Your task to perform on an android device: Install the Yelp app Image 0: 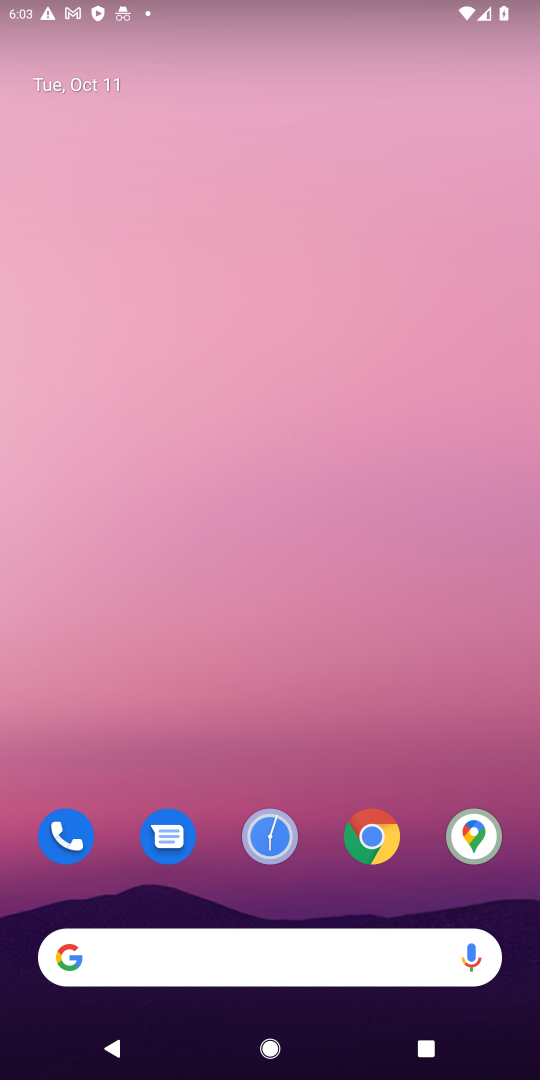
Step 0: click (371, 833)
Your task to perform on an android device: Install the Yelp app Image 1: 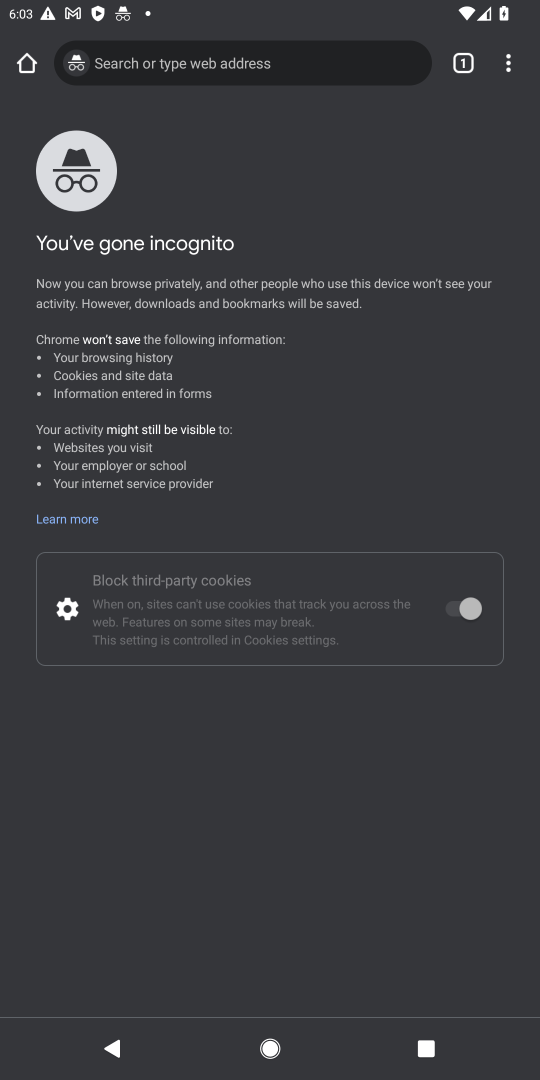
Step 1: press home button
Your task to perform on an android device: Install the Yelp app Image 2: 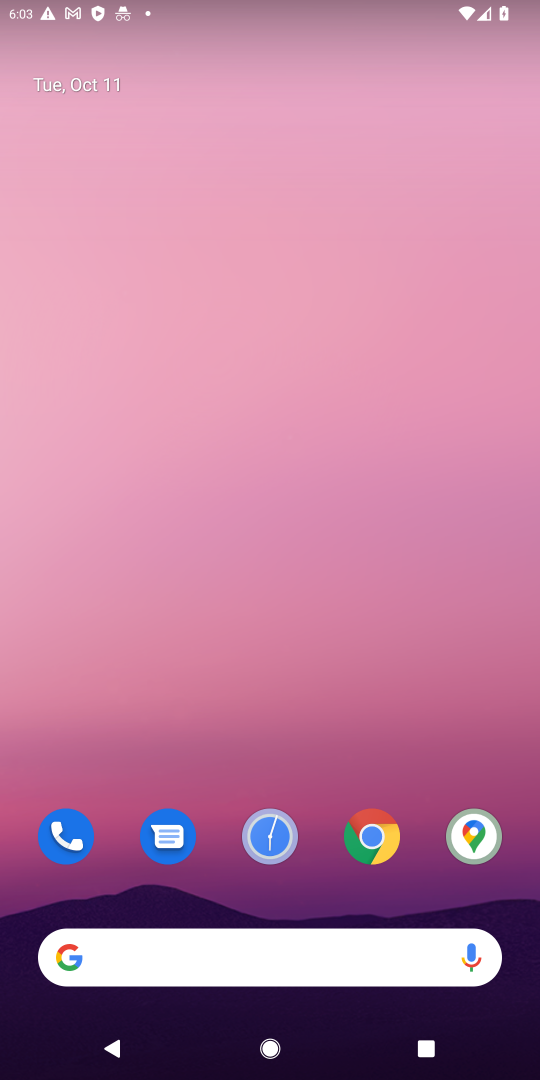
Step 2: drag from (426, 880) to (383, 139)
Your task to perform on an android device: Install the Yelp app Image 3: 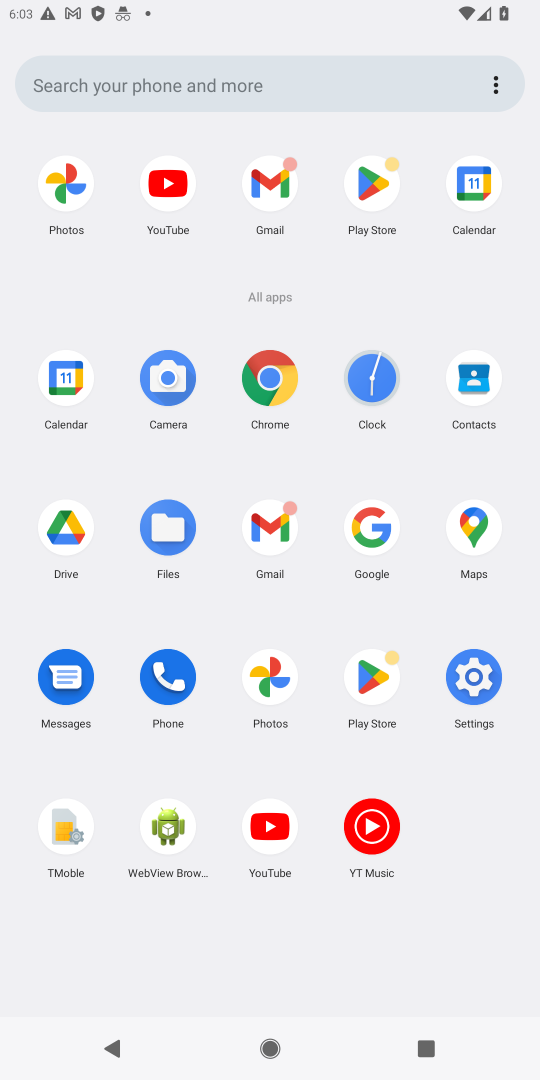
Step 3: click (377, 675)
Your task to perform on an android device: Install the Yelp app Image 4: 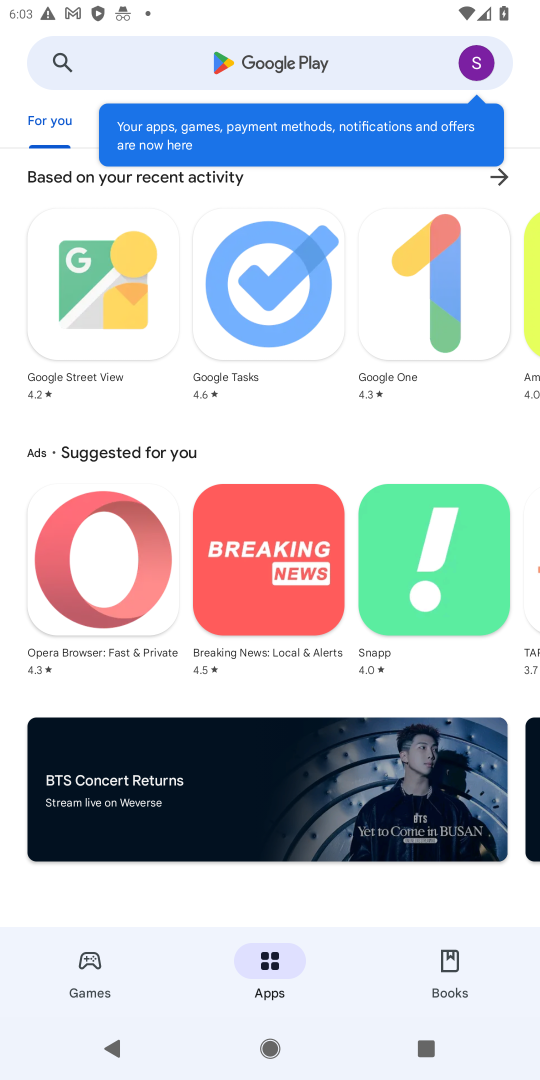
Step 4: click (99, 75)
Your task to perform on an android device: Install the Yelp app Image 5: 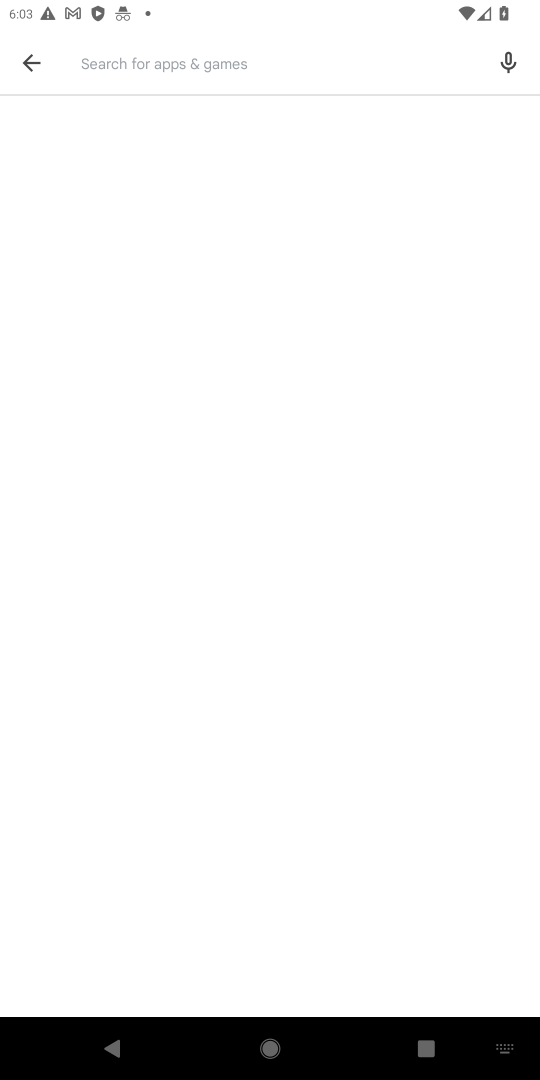
Step 5: type "yelp app"
Your task to perform on an android device: Install the Yelp app Image 6: 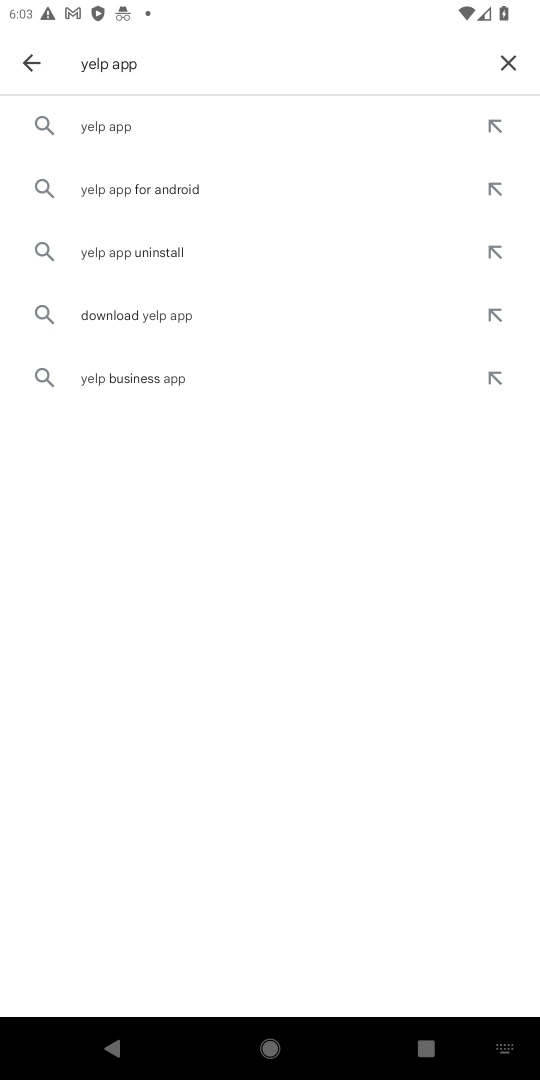
Step 6: click (94, 125)
Your task to perform on an android device: Install the Yelp app Image 7: 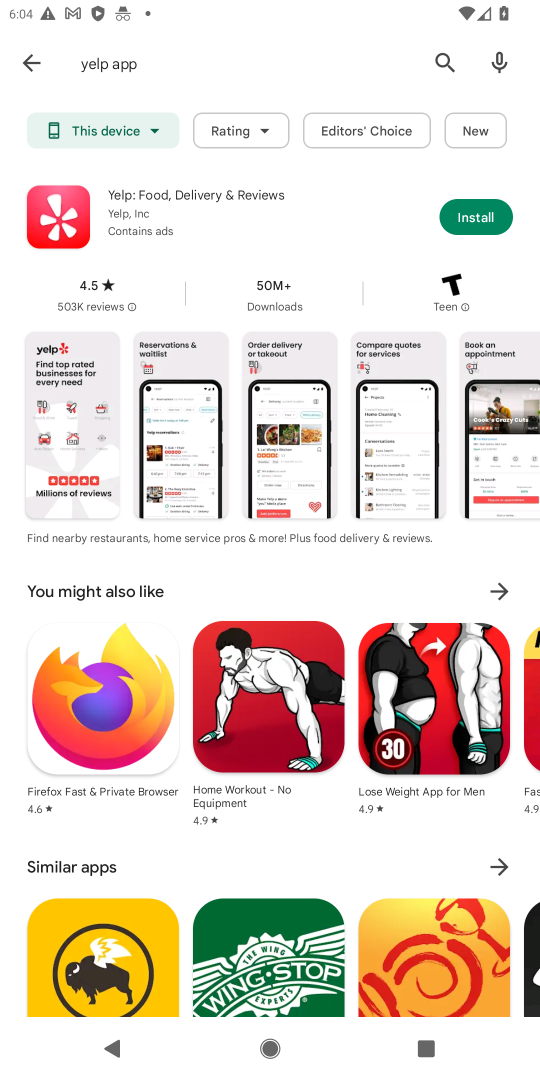
Step 7: click (471, 220)
Your task to perform on an android device: Install the Yelp app Image 8: 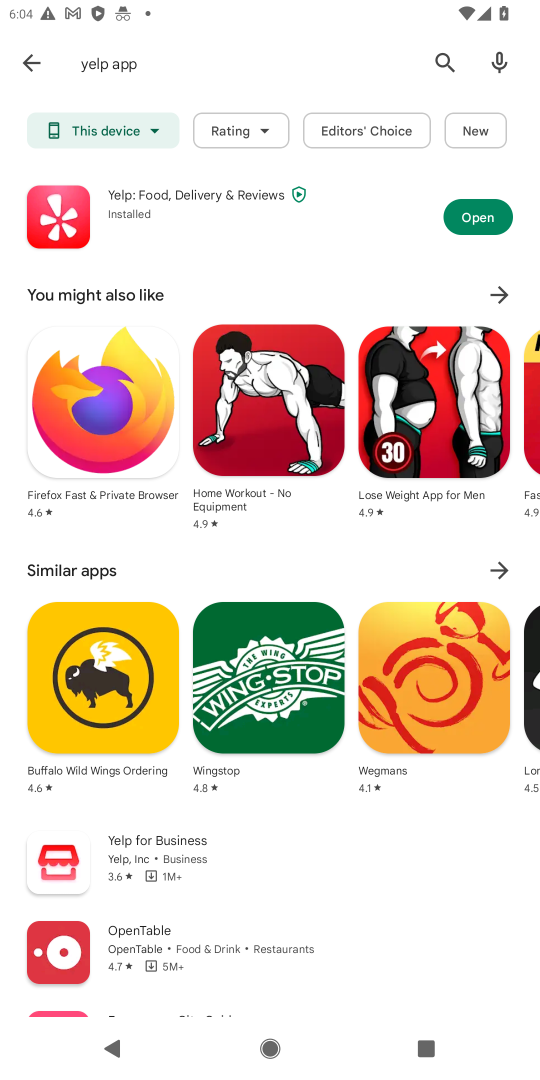
Step 8: click (477, 216)
Your task to perform on an android device: Install the Yelp app Image 9: 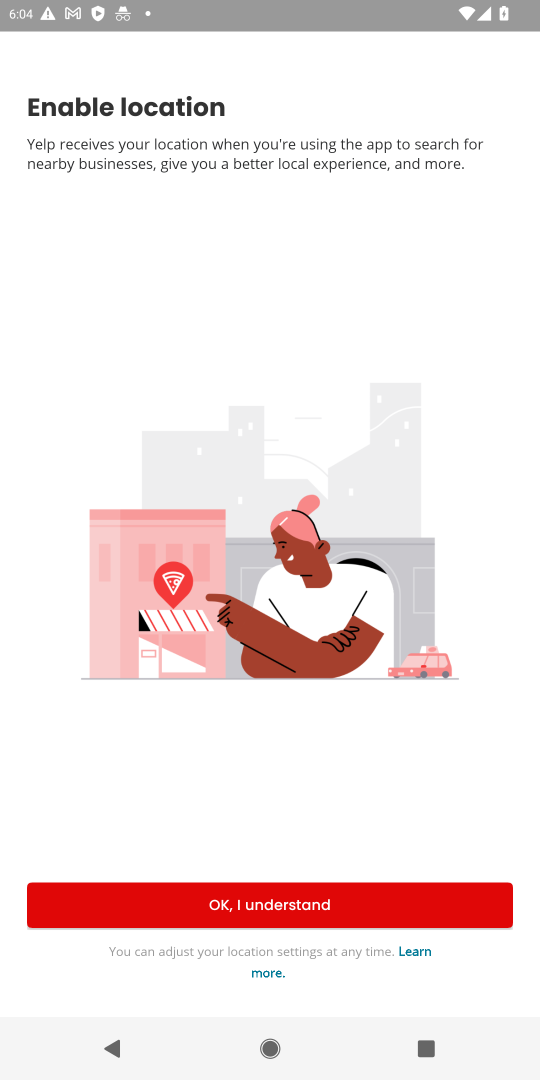
Step 9: click (250, 903)
Your task to perform on an android device: Install the Yelp app Image 10: 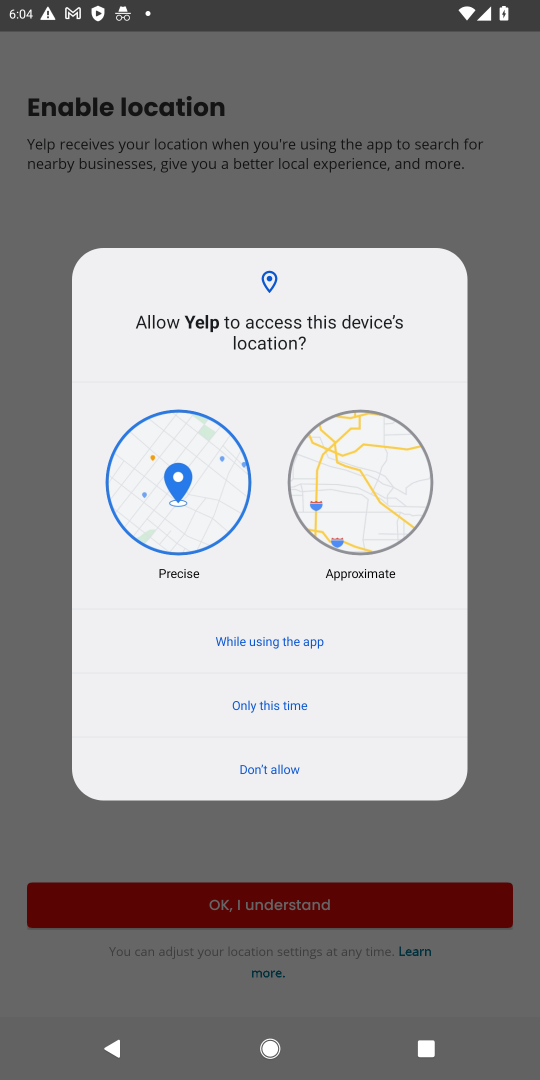
Step 10: click (252, 644)
Your task to perform on an android device: Install the Yelp app Image 11: 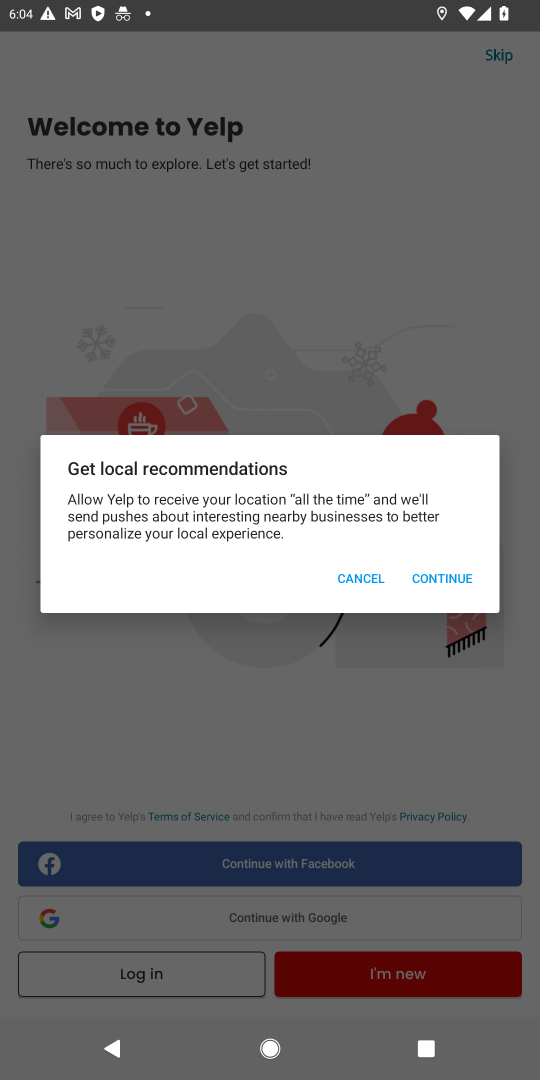
Step 11: click (343, 573)
Your task to perform on an android device: Install the Yelp app Image 12: 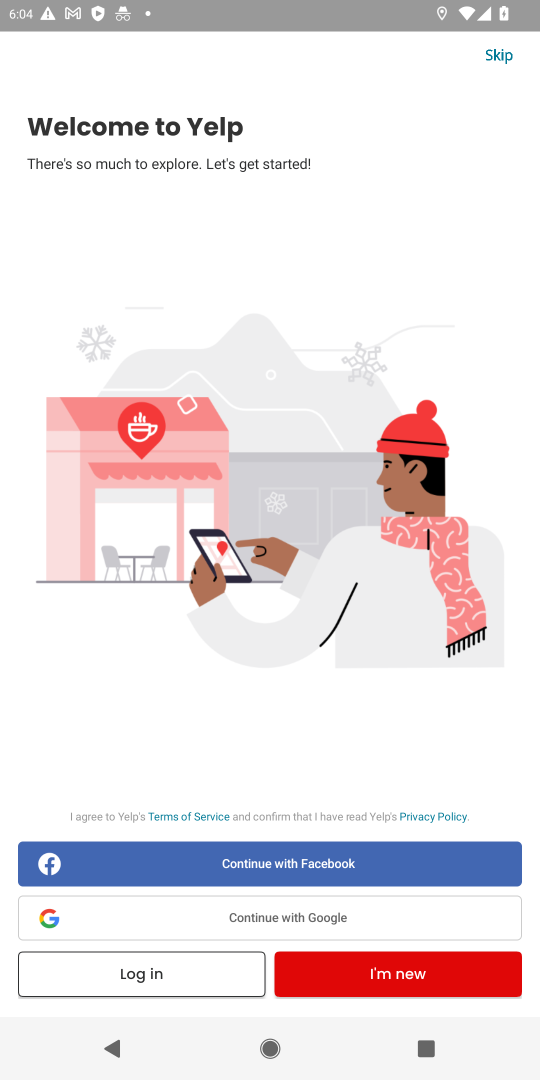
Step 12: task complete